Your task to perform on an android device: Open the Play Movies app and select the watchlist tab. Image 0: 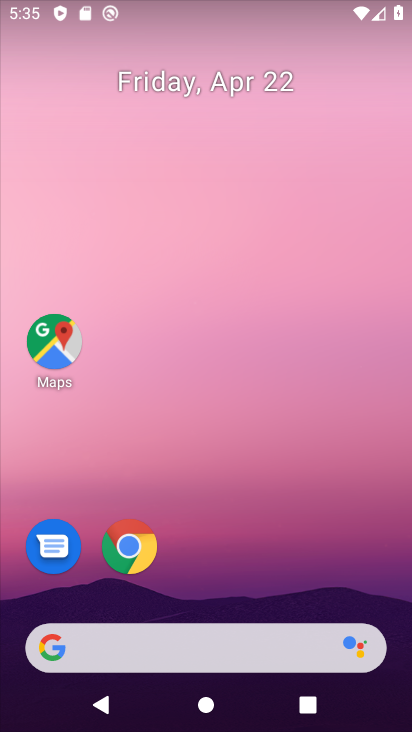
Step 0: drag from (255, 315) to (309, 26)
Your task to perform on an android device: Open the Play Movies app and select the watchlist tab. Image 1: 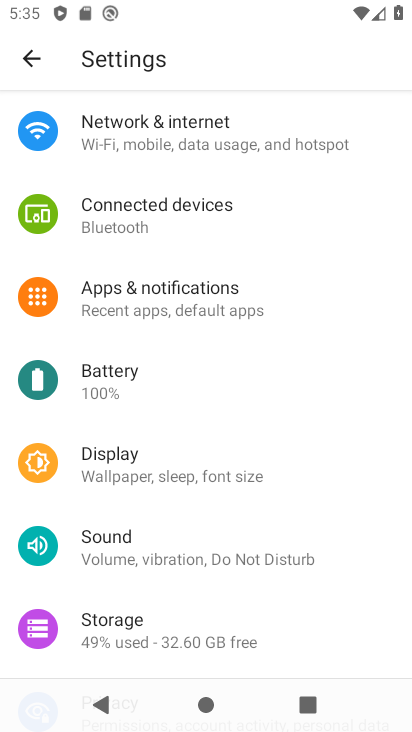
Step 1: press home button
Your task to perform on an android device: Open the Play Movies app and select the watchlist tab. Image 2: 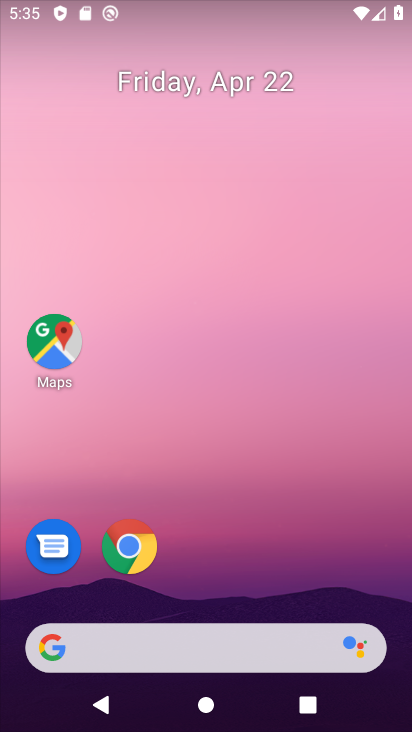
Step 2: drag from (294, 588) to (254, 59)
Your task to perform on an android device: Open the Play Movies app and select the watchlist tab. Image 3: 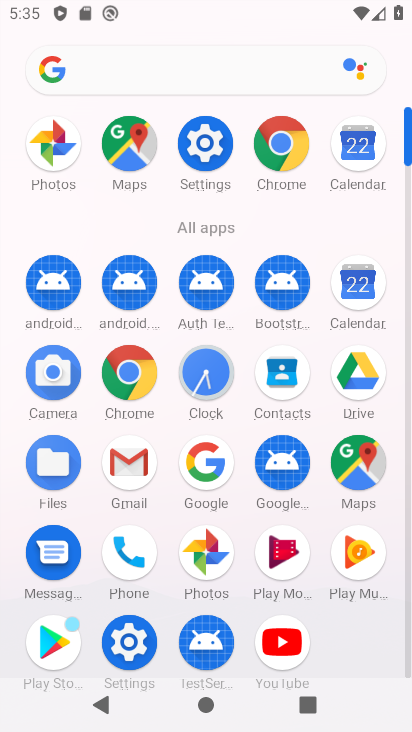
Step 3: click (277, 552)
Your task to perform on an android device: Open the Play Movies app and select the watchlist tab. Image 4: 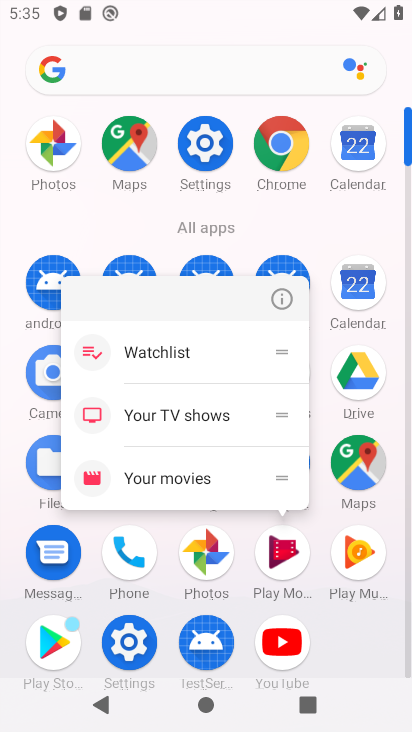
Step 4: click (294, 570)
Your task to perform on an android device: Open the Play Movies app and select the watchlist tab. Image 5: 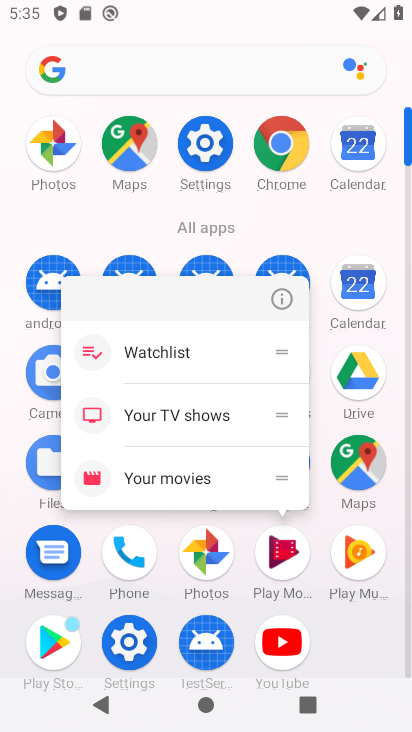
Step 5: click (269, 604)
Your task to perform on an android device: Open the Play Movies app and select the watchlist tab. Image 6: 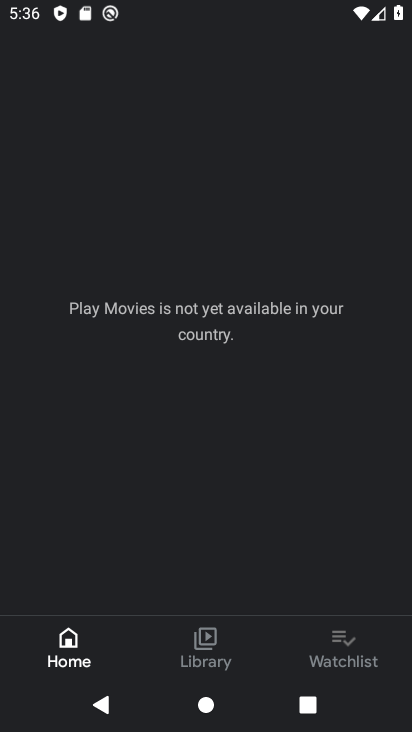
Step 6: click (345, 657)
Your task to perform on an android device: Open the Play Movies app and select the watchlist tab. Image 7: 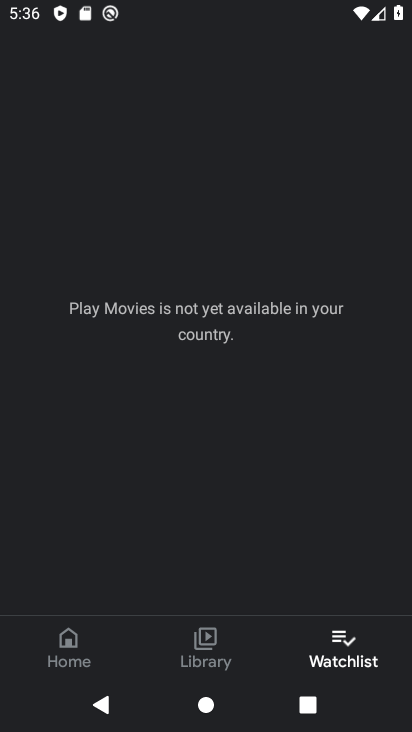
Step 7: task complete